Your task to perform on an android device: empty trash in the gmail app Image 0: 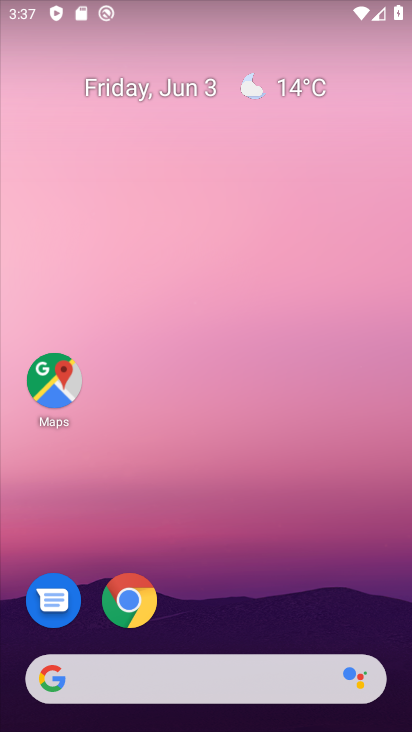
Step 0: press home button
Your task to perform on an android device: empty trash in the gmail app Image 1: 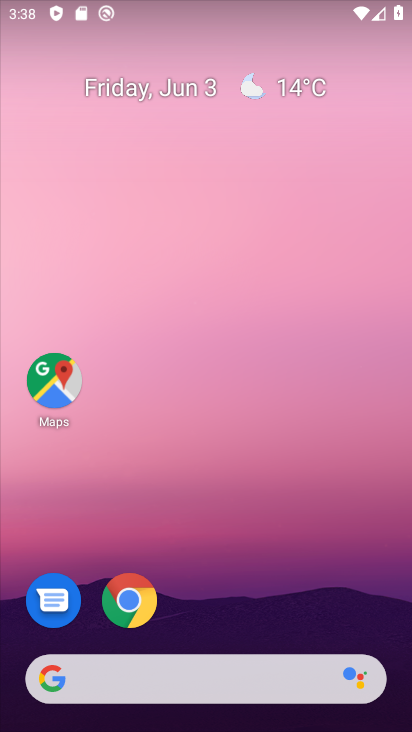
Step 1: drag from (99, 588) to (332, 139)
Your task to perform on an android device: empty trash in the gmail app Image 2: 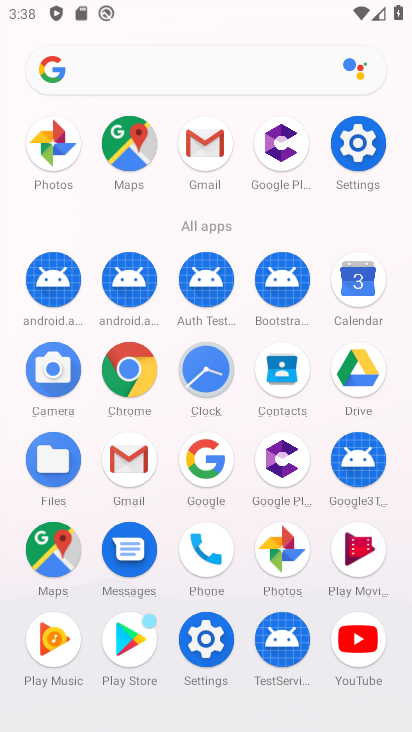
Step 2: click (190, 149)
Your task to perform on an android device: empty trash in the gmail app Image 3: 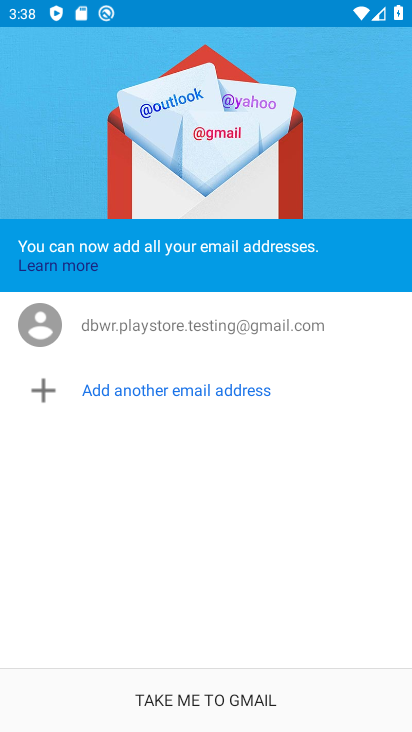
Step 3: click (226, 710)
Your task to perform on an android device: empty trash in the gmail app Image 4: 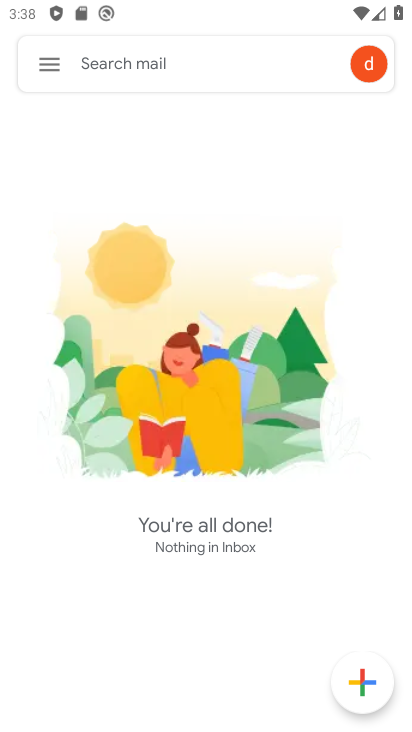
Step 4: click (43, 70)
Your task to perform on an android device: empty trash in the gmail app Image 5: 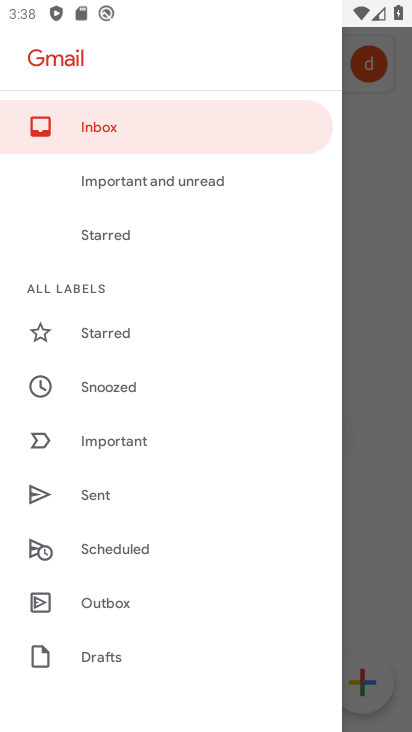
Step 5: drag from (20, 610) to (254, 208)
Your task to perform on an android device: empty trash in the gmail app Image 6: 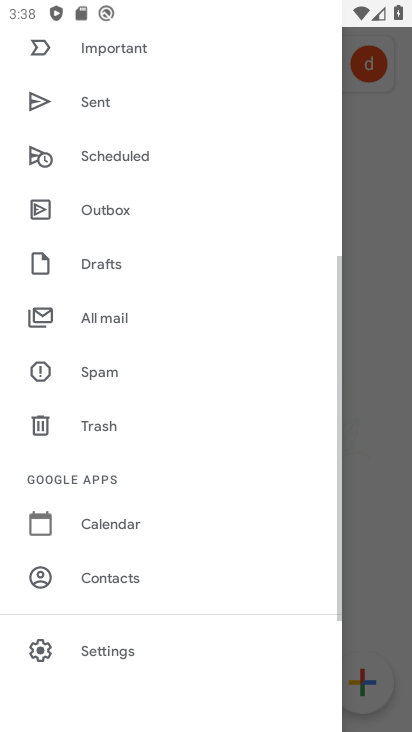
Step 6: drag from (178, 164) to (119, 603)
Your task to perform on an android device: empty trash in the gmail app Image 7: 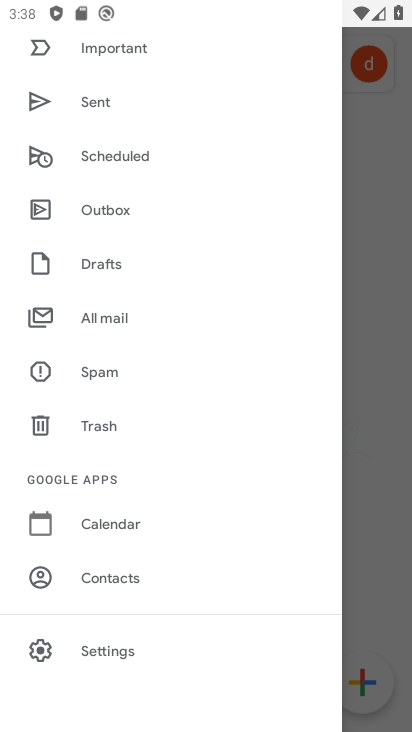
Step 7: click (86, 413)
Your task to perform on an android device: empty trash in the gmail app Image 8: 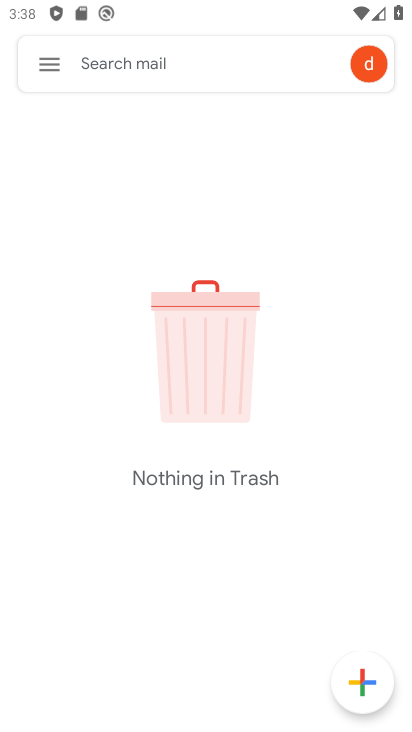
Step 8: task complete